Your task to perform on an android device: Open Youtube and go to "Your channel" Image 0: 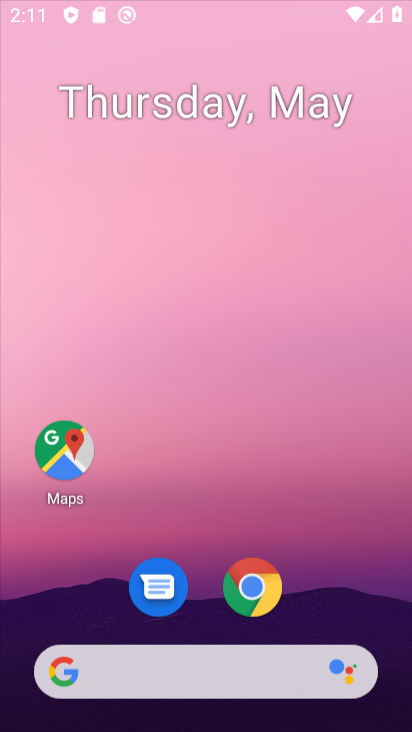
Step 0: drag from (325, 213) to (328, 126)
Your task to perform on an android device: Open Youtube and go to "Your channel" Image 1: 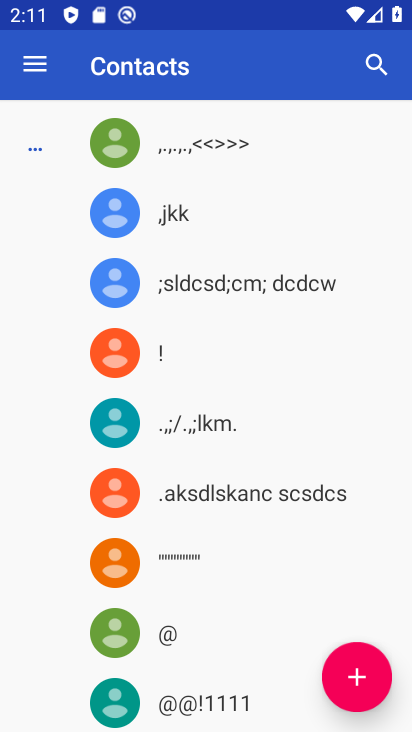
Step 1: press home button
Your task to perform on an android device: Open Youtube and go to "Your channel" Image 2: 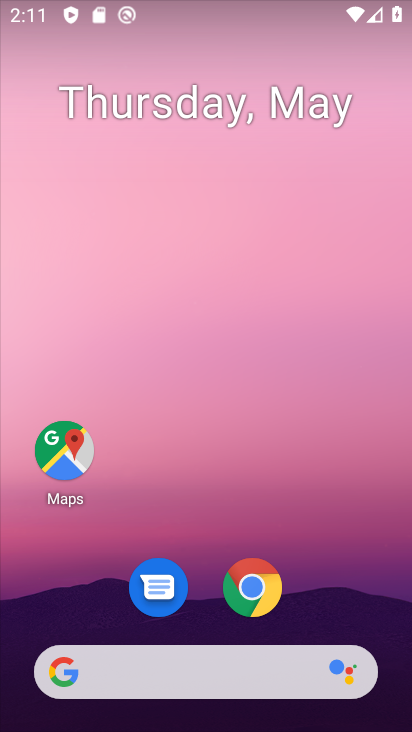
Step 2: drag from (309, 406) to (313, 130)
Your task to perform on an android device: Open Youtube and go to "Your channel" Image 3: 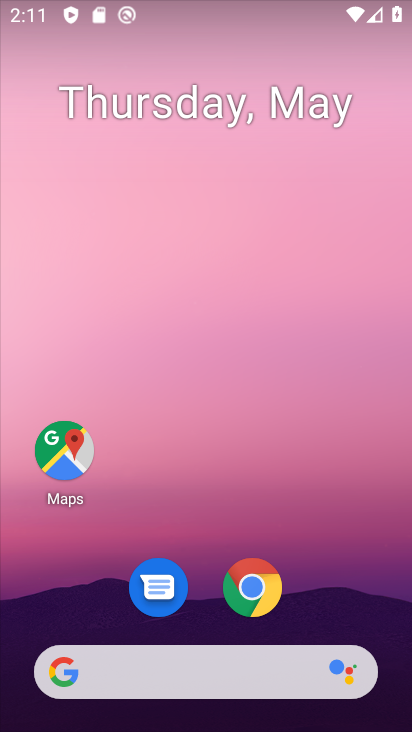
Step 3: drag from (315, 433) to (329, 56)
Your task to perform on an android device: Open Youtube and go to "Your channel" Image 4: 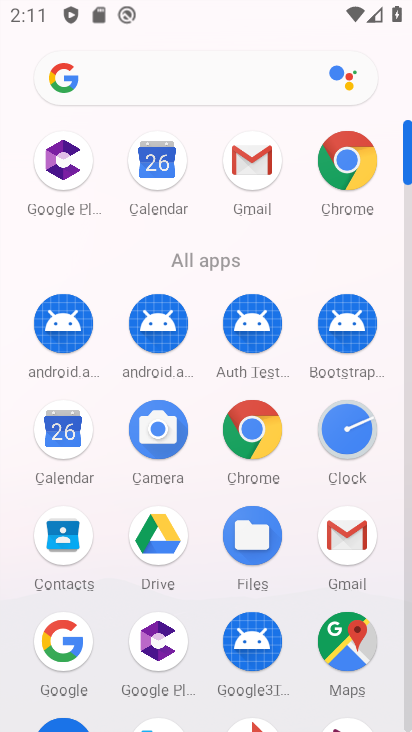
Step 4: drag from (287, 592) to (318, 126)
Your task to perform on an android device: Open Youtube and go to "Your channel" Image 5: 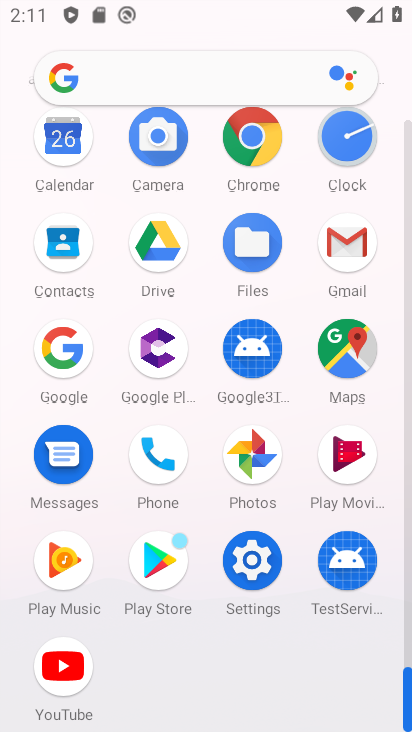
Step 5: click (71, 654)
Your task to perform on an android device: Open Youtube and go to "Your channel" Image 6: 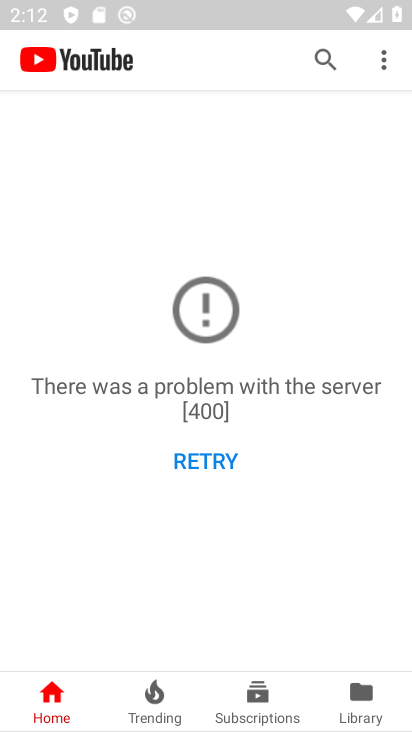
Step 6: click (226, 446)
Your task to perform on an android device: Open Youtube and go to "Your channel" Image 7: 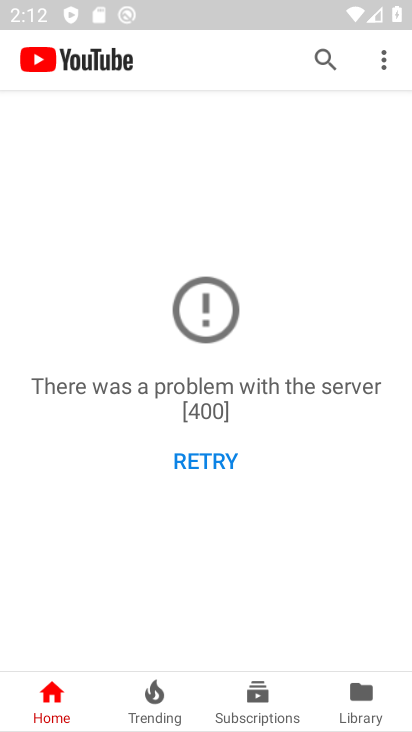
Step 7: task complete